Your task to perform on an android device: star an email in the gmail app Image 0: 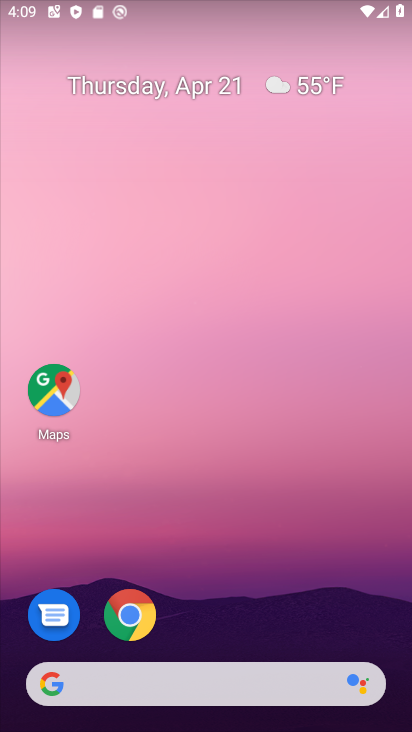
Step 0: drag from (258, 503) to (124, 45)
Your task to perform on an android device: star an email in the gmail app Image 1: 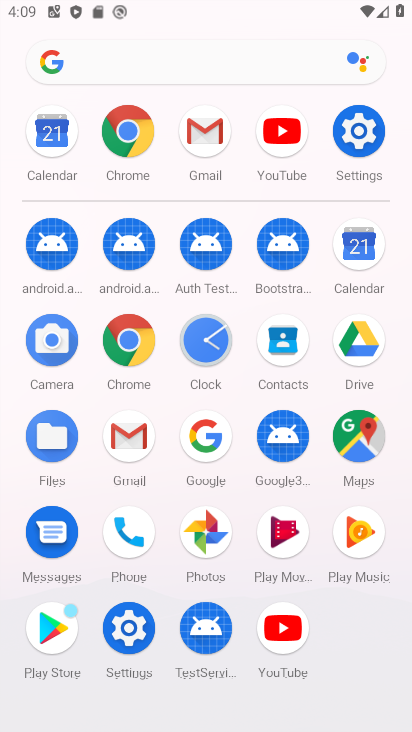
Step 1: drag from (5, 539) to (5, 287)
Your task to perform on an android device: star an email in the gmail app Image 2: 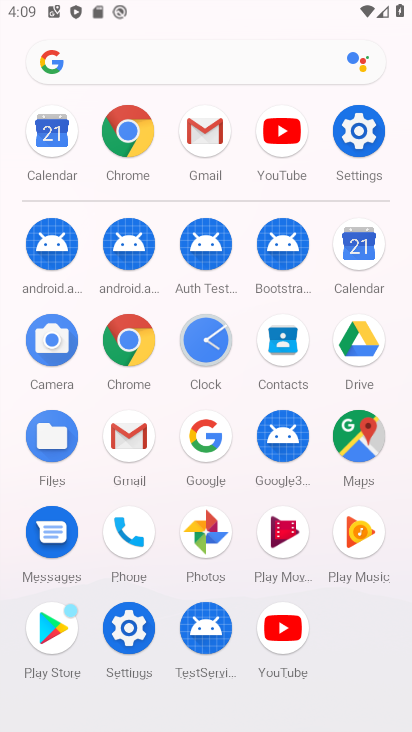
Step 2: click (128, 432)
Your task to perform on an android device: star an email in the gmail app Image 3: 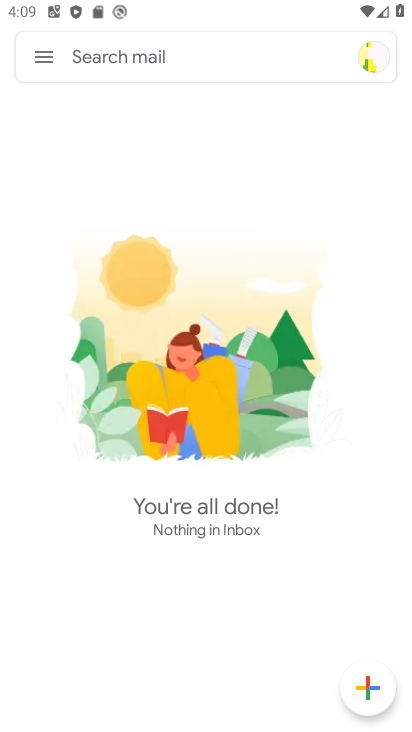
Step 3: click (41, 46)
Your task to perform on an android device: star an email in the gmail app Image 4: 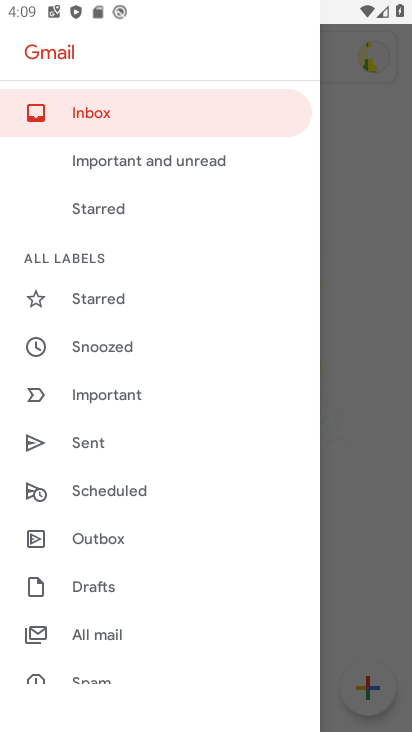
Step 4: drag from (162, 568) to (160, 143)
Your task to perform on an android device: star an email in the gmail app Image 5: 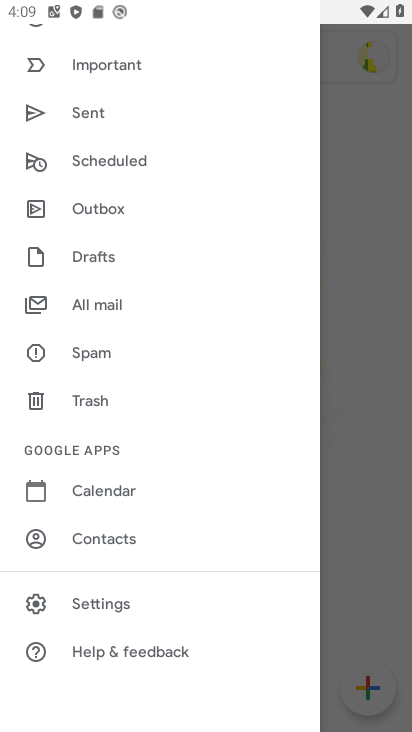
Step 5: click (122, 602)
Your task to perform on an android device: star an email in the gmail app Image 6: 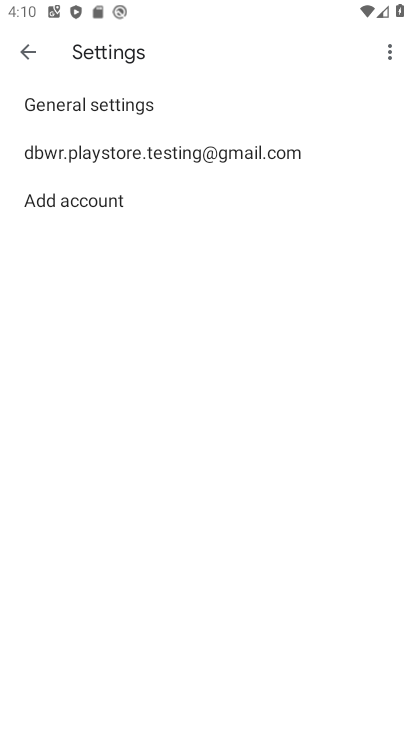
Step 6: click (113, 140)
Your task to perform on an android device: star an email in the gmail app Image 7: 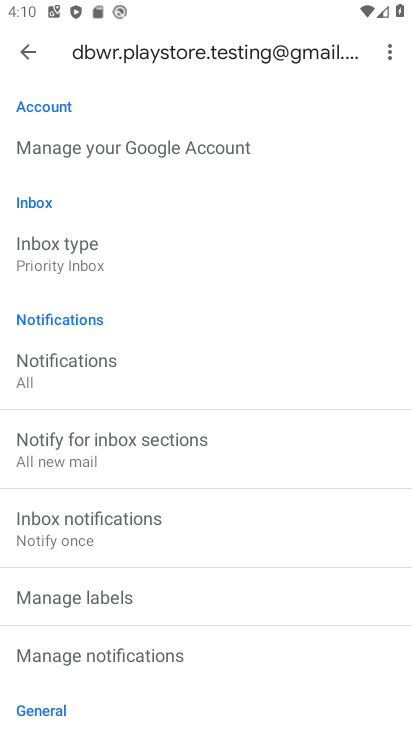
Step 7: drag from (302, 550) to (265, 148)
Your task to perform on an android device: star an email in the gmail app Image 8: 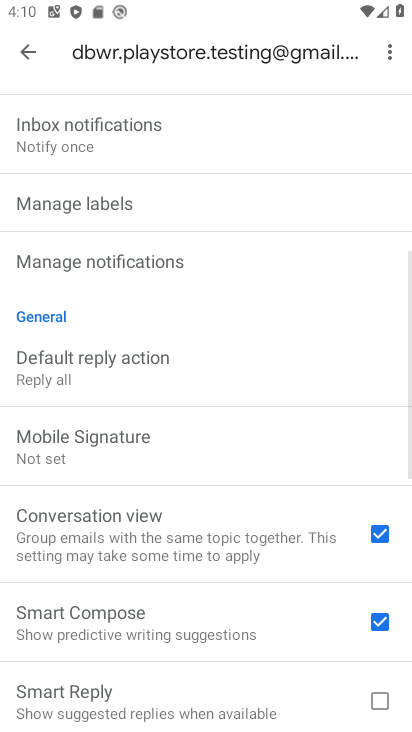
Step 8: click (27, 37)
Your task to perform on an android device: star an email in the gmail app Image 9: 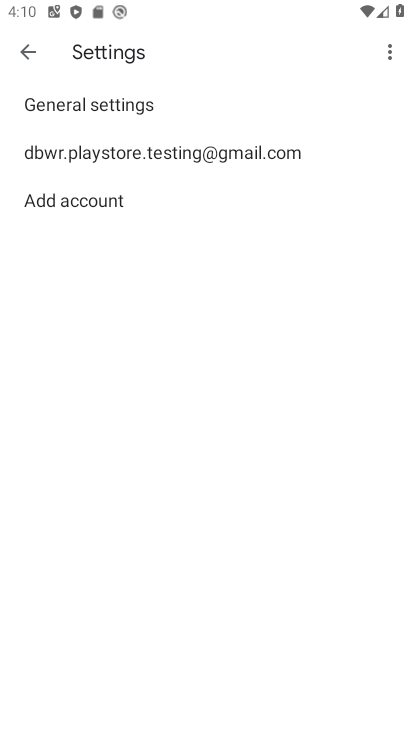
Step 9: click (27, 37)
Your task to perform on an android device: star an email in the gmail app Image 10: 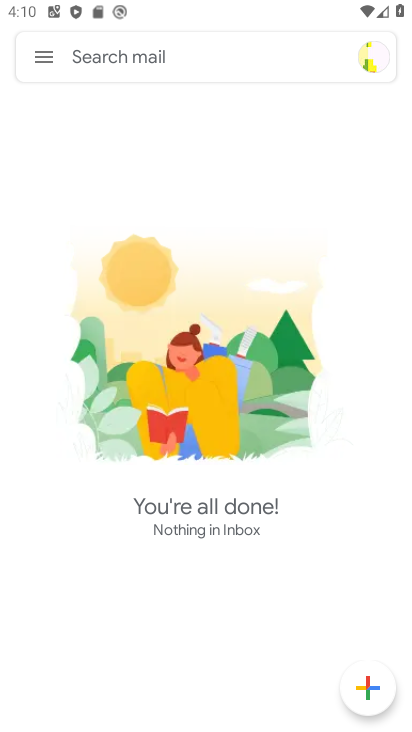
Step 10: click (52, 52)
Your task to perform on an android device: star an email in the gmail app Image 11: 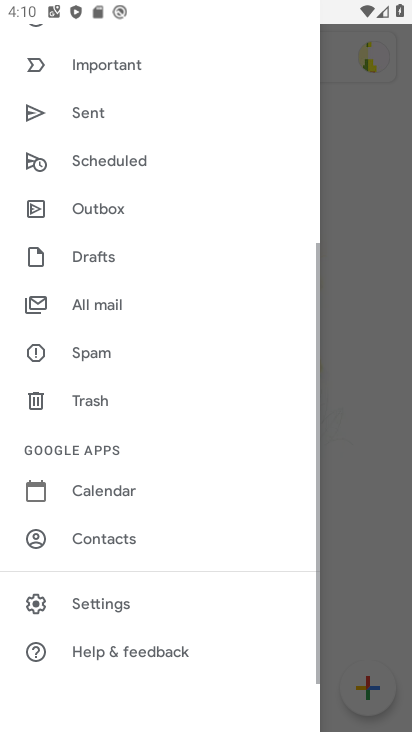
Step 11: click (116, 306)
Your task to perform on an android device: star an email in the gmail app Image 12: 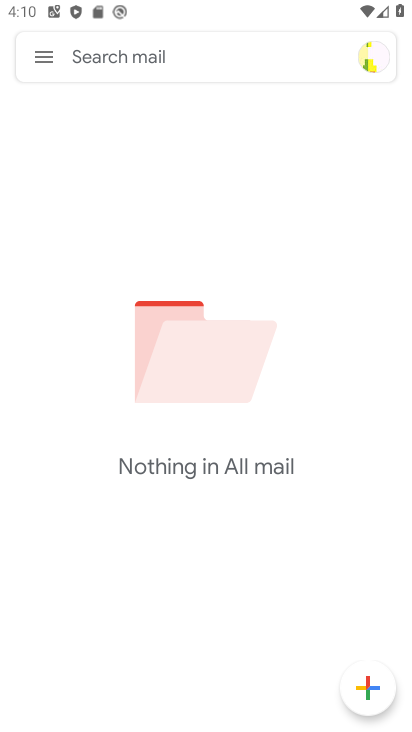
Step 12: task complete